Your task to perform on an android device: Search for vegetarian restaurants on Maps Image 0: 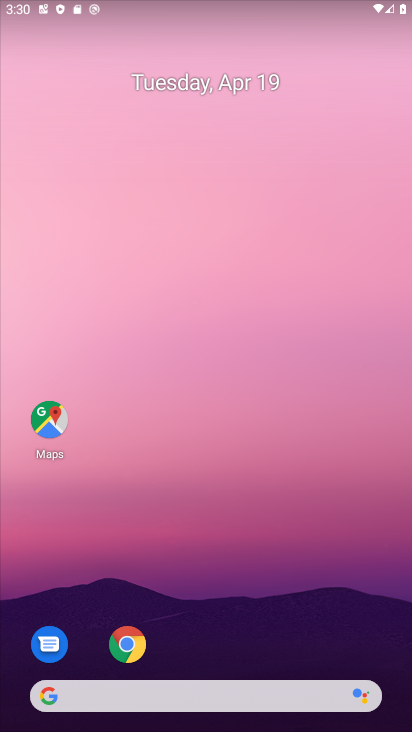
Step 0: drag from (175, 669) to (203, 151)
Your task to perform on an android device: Search for vegetarian restaurants on Maps Image 1: 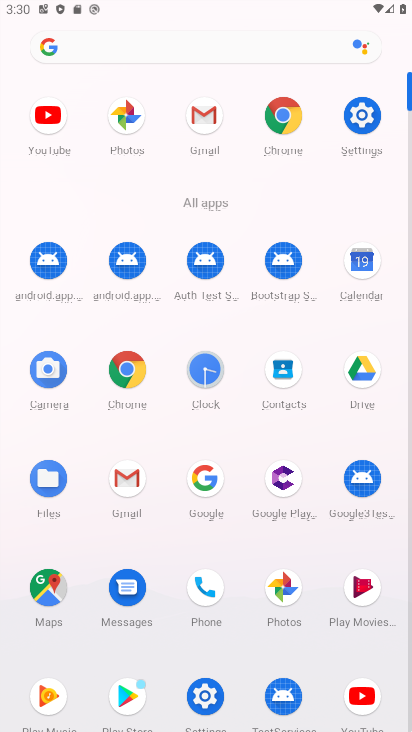
Step 1: click (45, 588)
Your task to perform on an android device: Search for vegetarian restaurants on Maps Image 2: 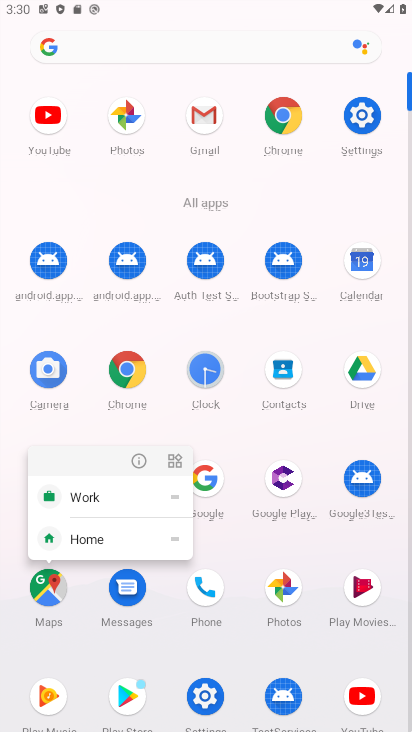
Step 2: click (44, 592)
Your task to perform on an android device: Search for vegetarian restaurants on Maps Image 3: 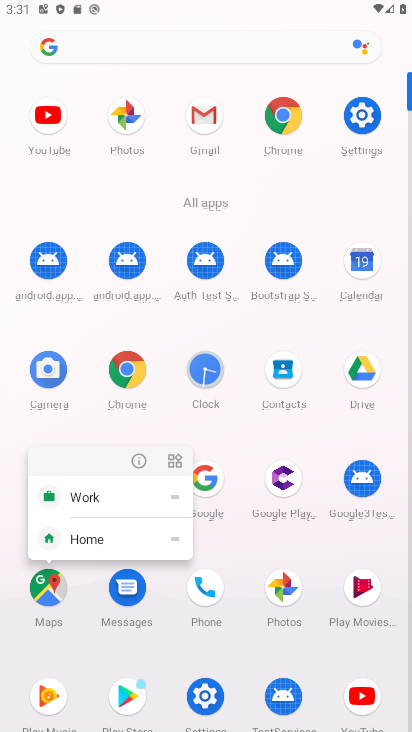
Step 3: click (41, 592)
Your task to perform on an android device: Search for vegetarian restaurants on Maps Image 4: 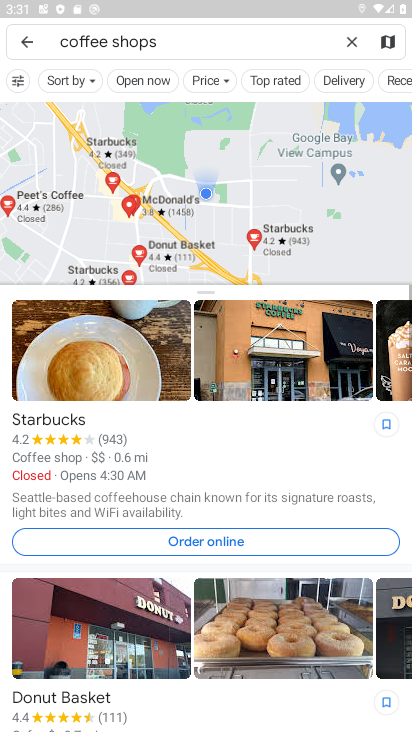
Step 4: click (352, 44)
Your task to perform on an android device: Search for vegetarian restaurants on Maps Image 5: 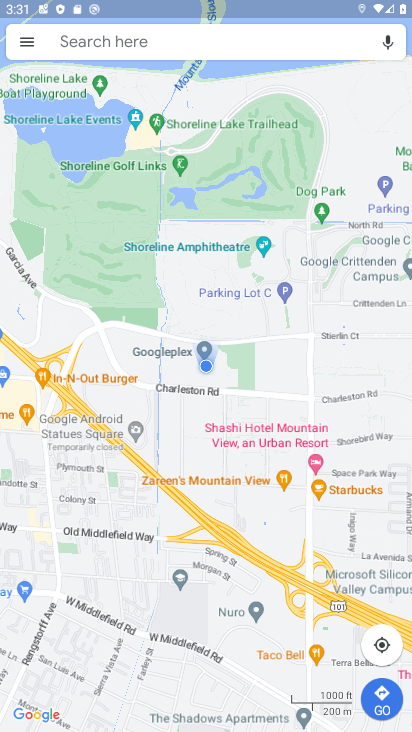
Step 5: click (160, 40)
Your task to perform on an android device: Search for vegetarian restaurants on Maps Image 6: 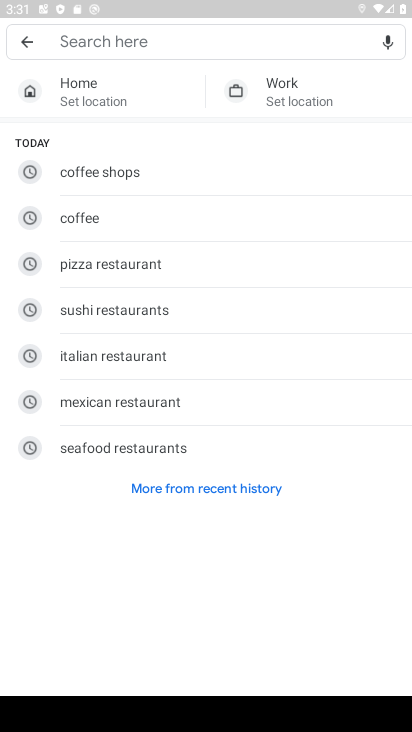
Step 6: type "vegetarian restaurants "
Your task to perform on an android device: Search for vegetarian restaurants on Maps Image 7: 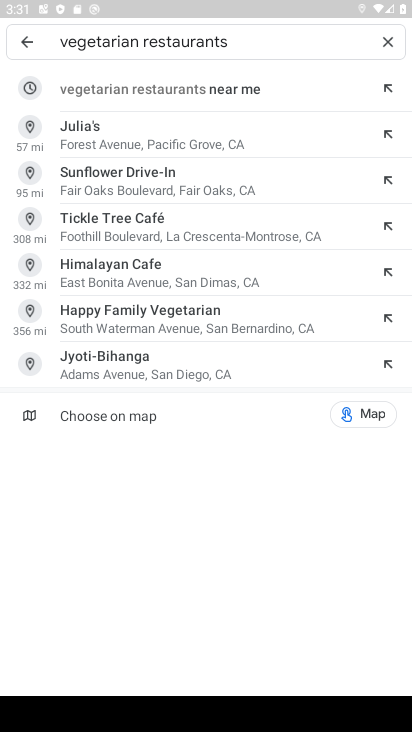
Step 7: click (241, 90)
Your task to perform on an android device: Search for vegetarian restaurants on Maps Image 8: 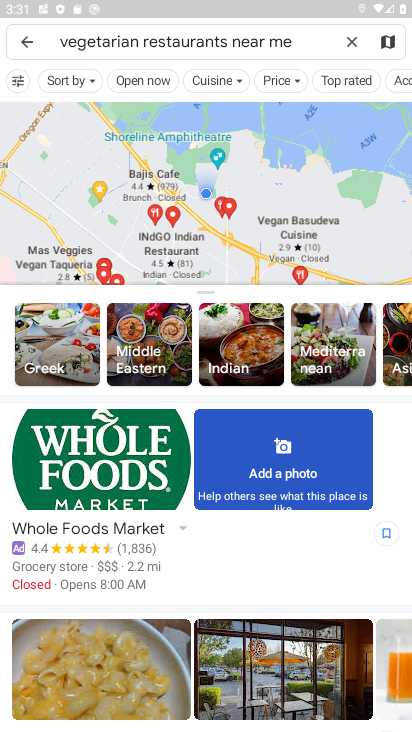
Step 8: task complete